Your task to perform on an android device: Turn off the flashlight Image 0: 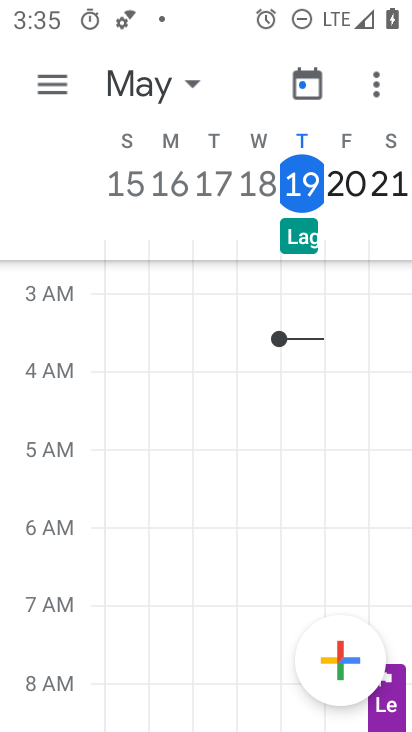
Step 0: drag from (226, 31) to (231, 495)
Your task to perform on an android device: Turn off the flashlight Image 1: 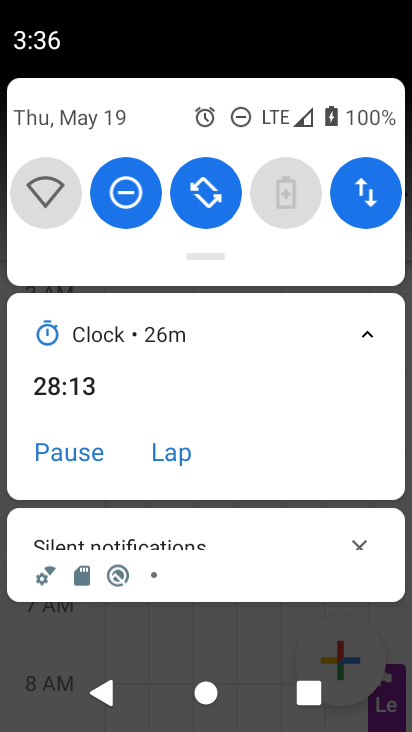
Step 1: task complete